Your task to perform on an android device: Open accessibility settings Image 0: 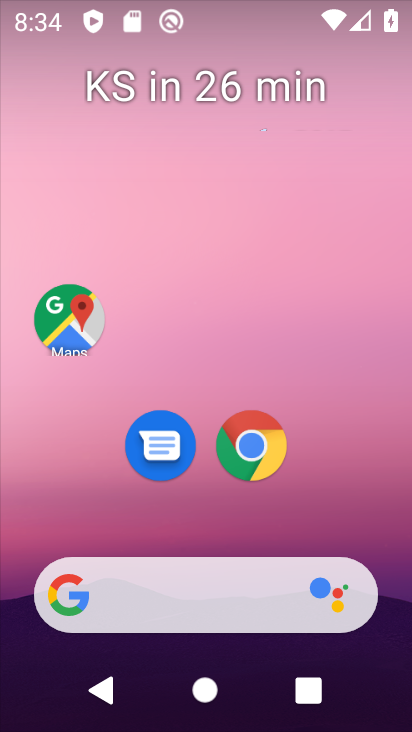
Step 0: drag from (289, 498) to (355, 115)
Your task to perform on an android device: Open accessibility settings Image 1: 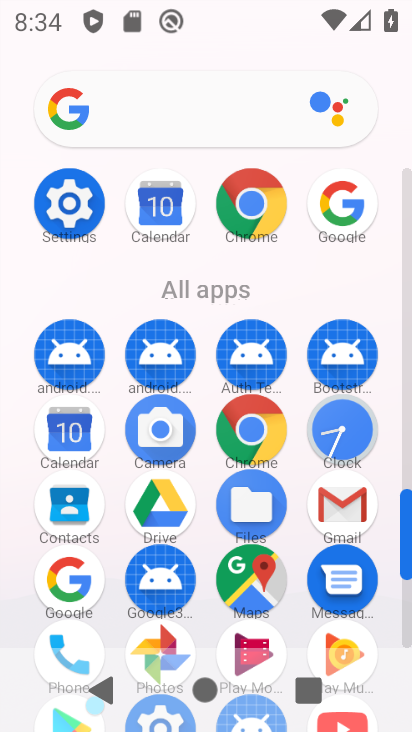
Step 1: click (84, 203)
Your task to perform on an android device: Open accessibility settings Image 2: 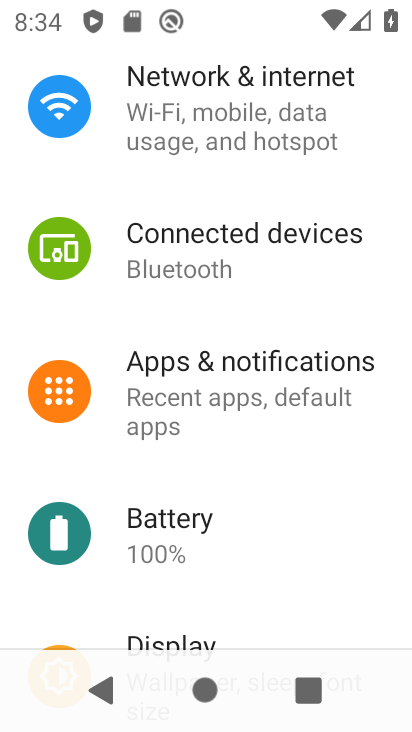
Step 2: drag from (230, 495) to (275, 198)
Your task to perform on an android device: Open accessibility settings Image 3: 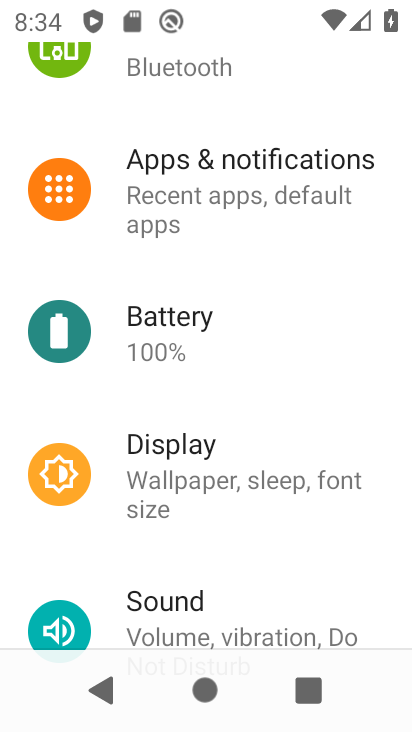
Step 3: drag from (234, 537) to (283, 167)
Your task to perform on an android device: Open accessibility settings Image 4: 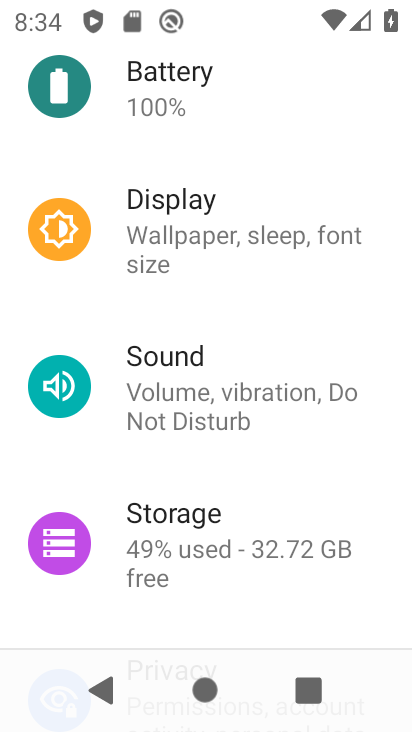
Step 4: drag from (220, 519) to (265, 157)
Your task to perform on an android device: Open accessibility settings Image 5: 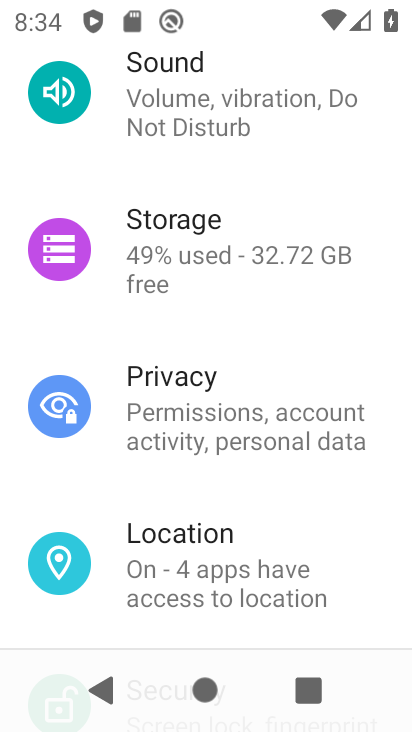
Step 5: drag from (196, 528) to (233, 199)
Your task to perform on an android device: Open accessibility settings Image 6: 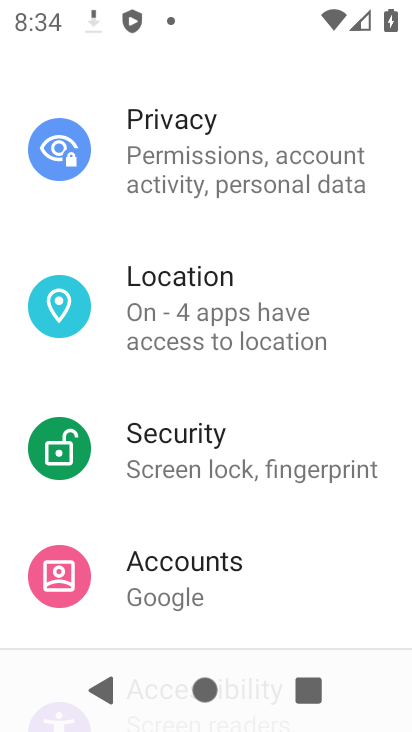
Step 6: drag from (206, 446) to (212, 171)
Your task to perform on an android device: Open accessibility settings Image 7: 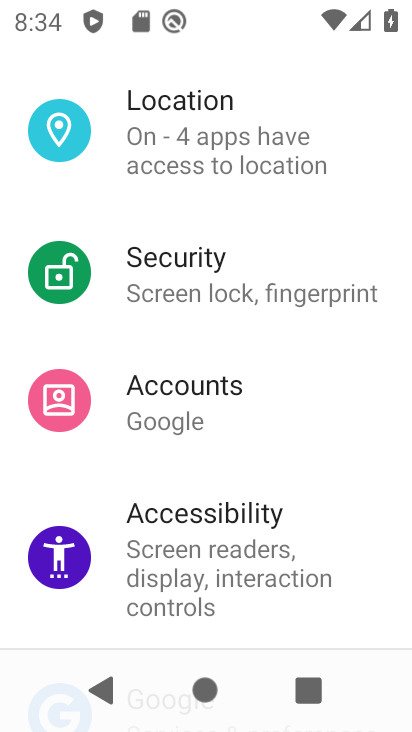
Step 7: click (160, 558)
Your task to perform on an android device: Open accessibility settings Image 8: 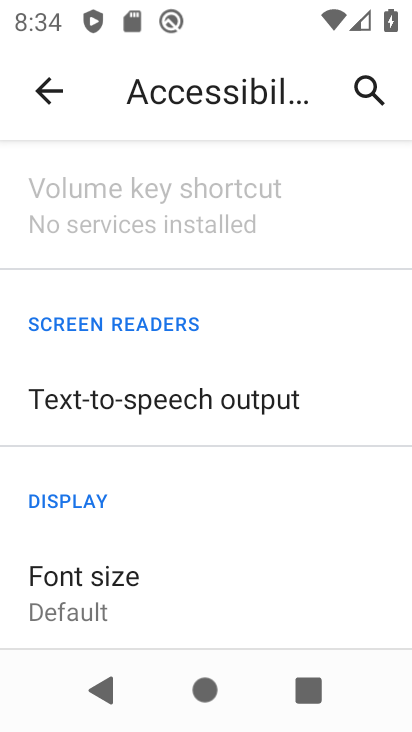
Step 8: task complete